Your task to perform on an android device: turn pop-ups off in chrome Image 0: 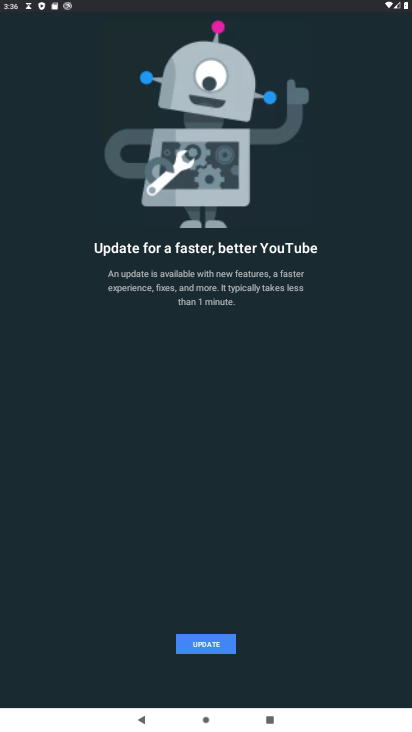
Step 0: press home button
Your task to perform on an android device: turn pop-ups off in chrome Image 1: 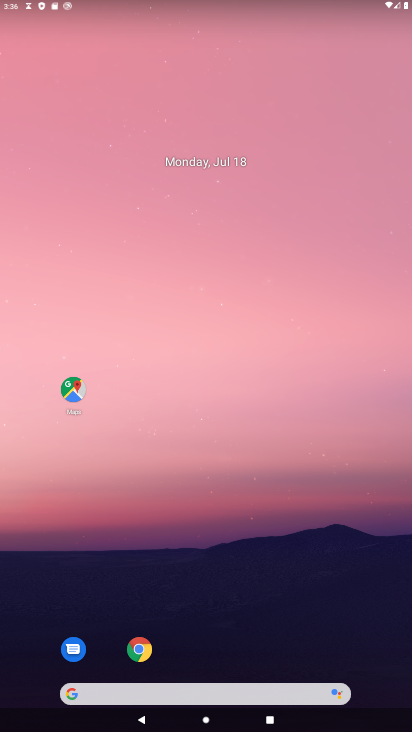
Step 1: press home button
Your task to perform on an android device: turn pop-ups off in chrome Image 2: 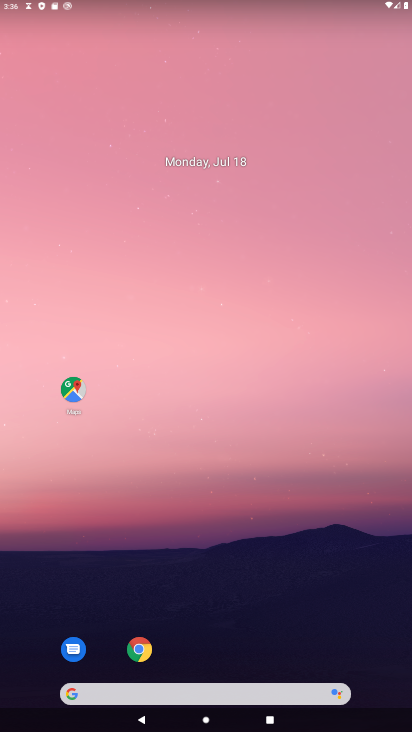
Step 2: click (144, 643)
Your task to perform on an android device: turn pop-ups off in chrome Image 3: 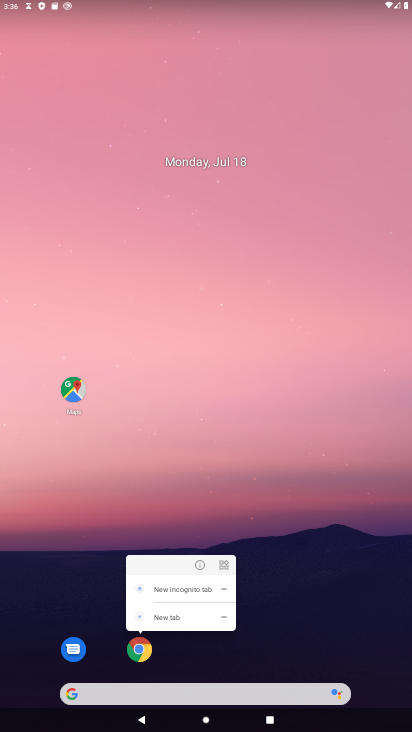
Step 3: click (144, 646)
Your task to perform on an android device: turn pop-ups off in chrome Image 4: 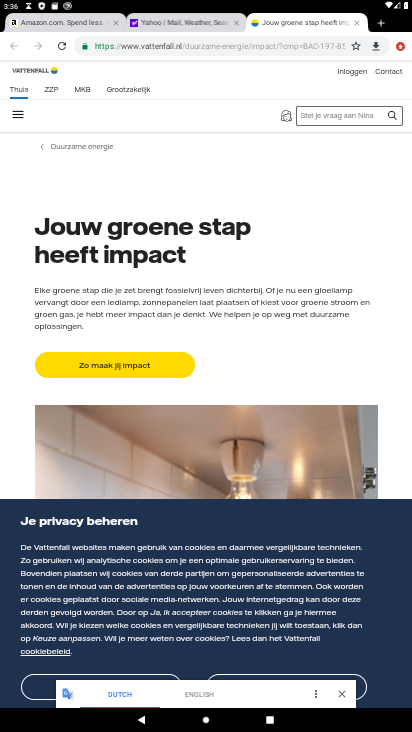
Step 4: drag from (399, 45) to (330, 325)
Your task to perform on an android device: turn pop-ups off in chrome Image 5: 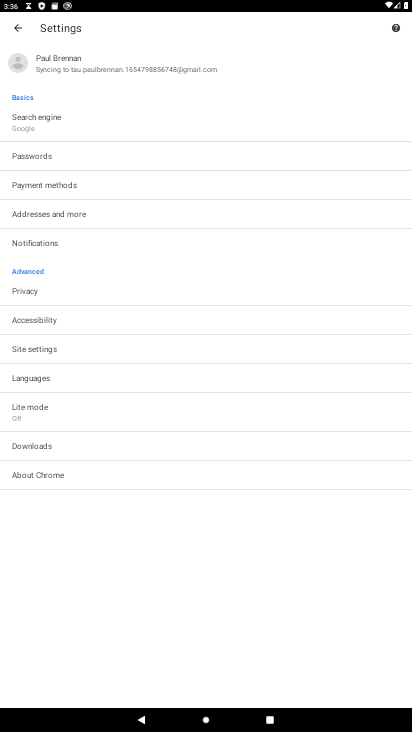
Step 5: click (28, 347)
Your task to perform on an android device: turn pop-ups off in chrome Image 6: 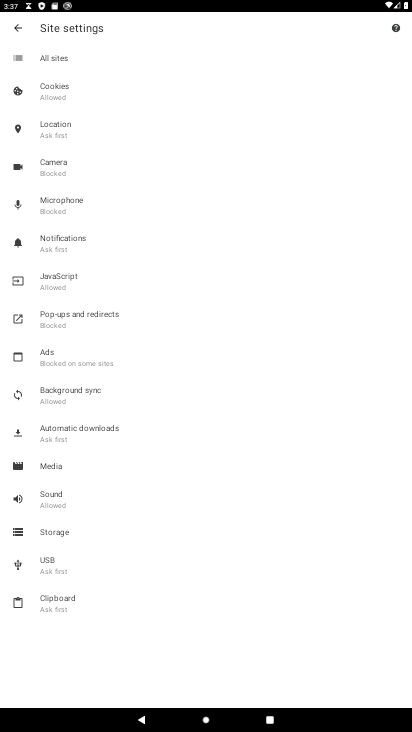
Step 6: click (80, 315)
Your task to perform on an android device: turn pop-ups off in chrome Image 7: 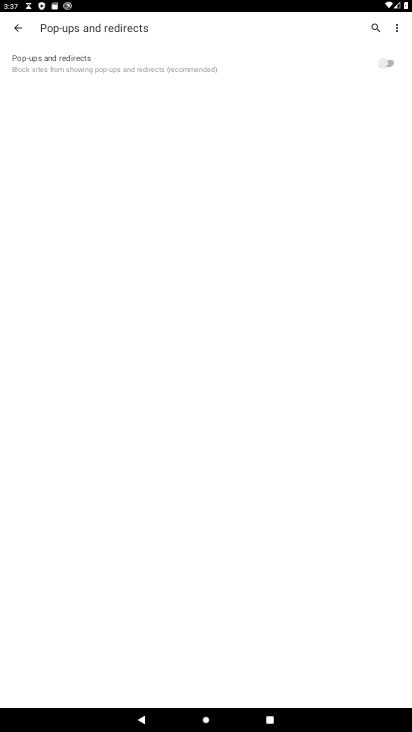
Step 7: task complete